Your task to perform on an android device: Go to Yahoo.com Image 0: 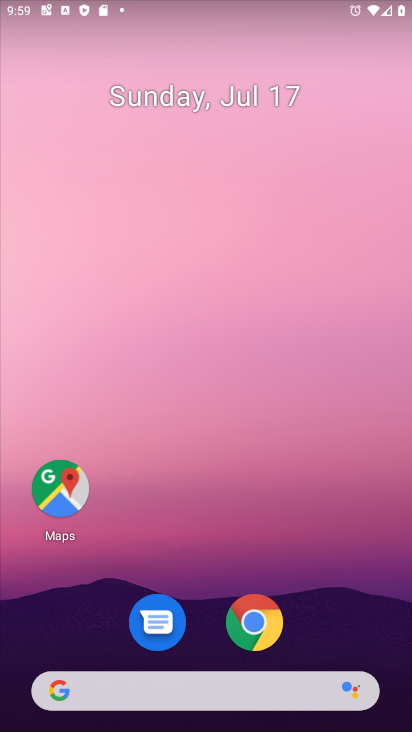
Step 0: click (248, 699)
Your task to perform on an android device: Go to Yahoo.com Image 1: 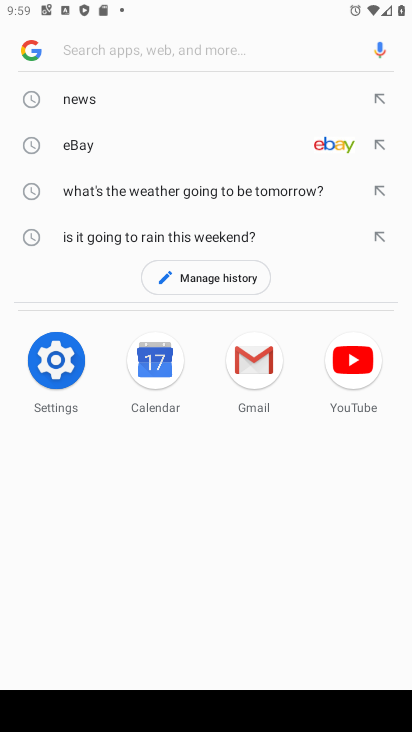
Step 1: type "yahoo.com"
Your task to perform on an android device: Go to Yahoo.com Image 2: 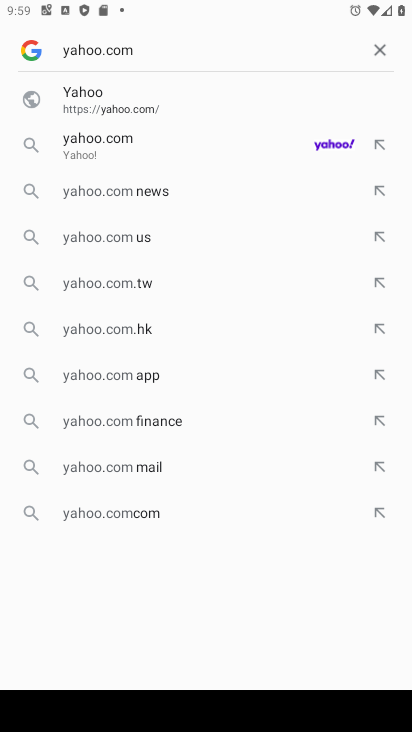
Step 2: click (177, 101)
Your task to perform on an android device: Go to Yahoo.com Image 3: 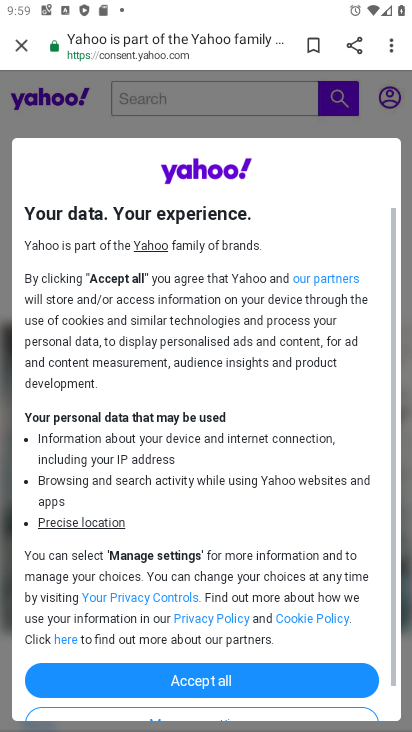
Step 3: task complete